Your task to perform on an android device: Go to wifi settings Image 0: 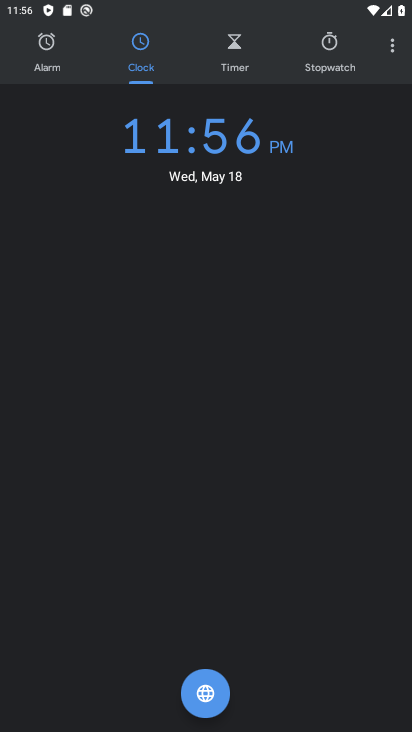
Step 0: press home button
Your task to perform on an android device: Go to wifi settings Image 1: 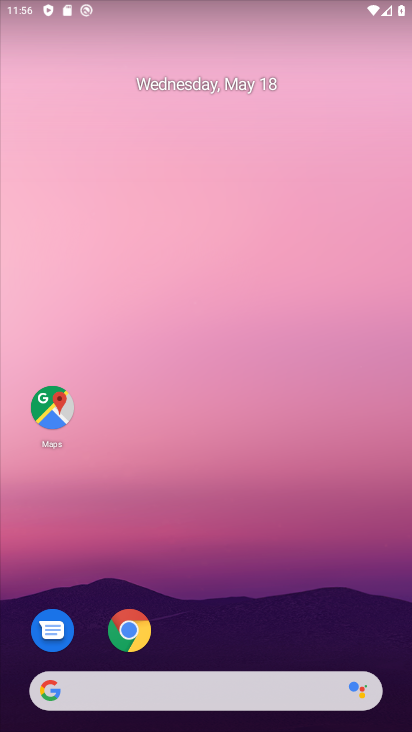
Step 1: drag from (173, 655) to (226, 293)
Your task to perform on an android device: Go to wifi settings Image 2: 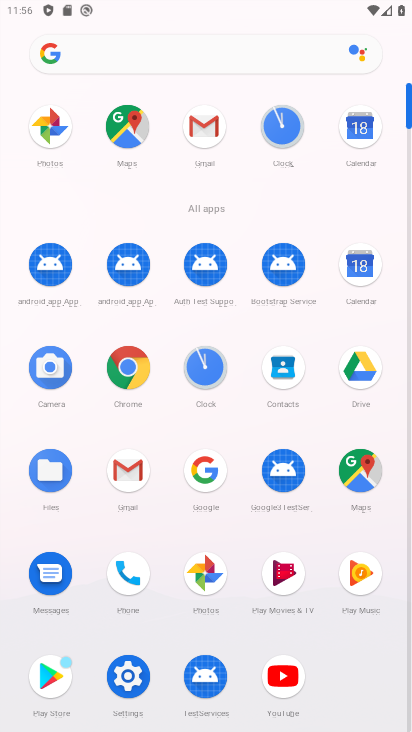
Step 2: click (124, 667)
Your task to perform on an android device: Go to wifi settings Image 3: 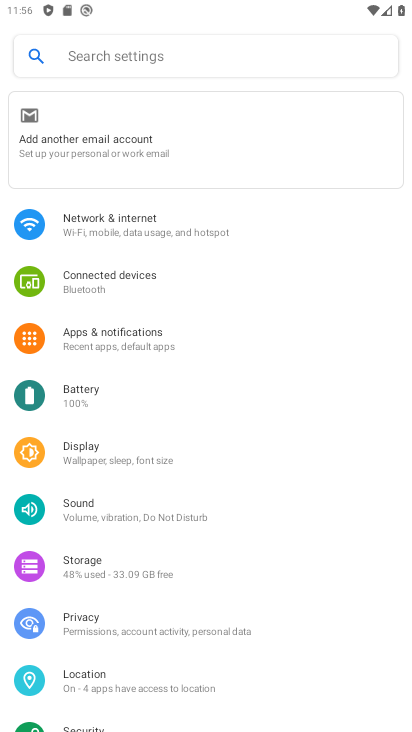
Step 3: click (187, 232)
Your task to perform on an android device: Go to wifi settings Image 4: 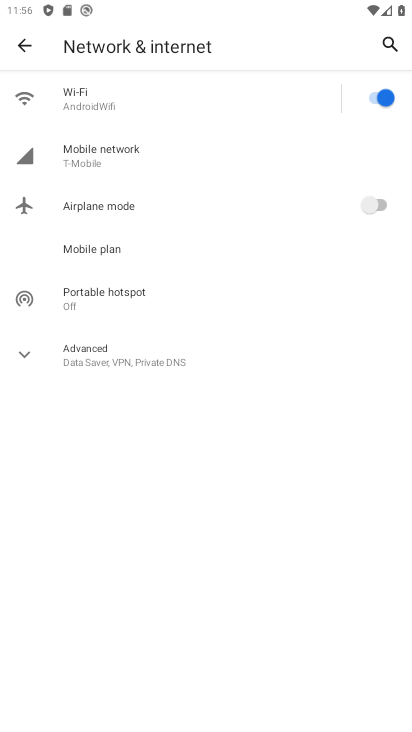
Step 4: click (139, 86)
Your task to perform on an android device: Go to wifi settings Image 5: 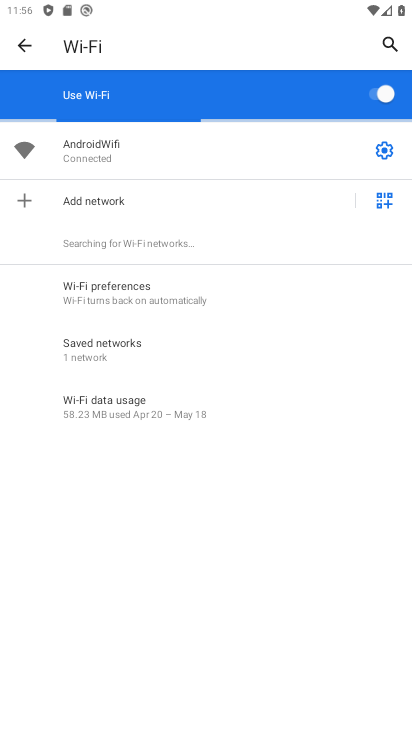
Step 5: task complete